Your task to perform on an android device: delete a single message in the gmail app Image 0: 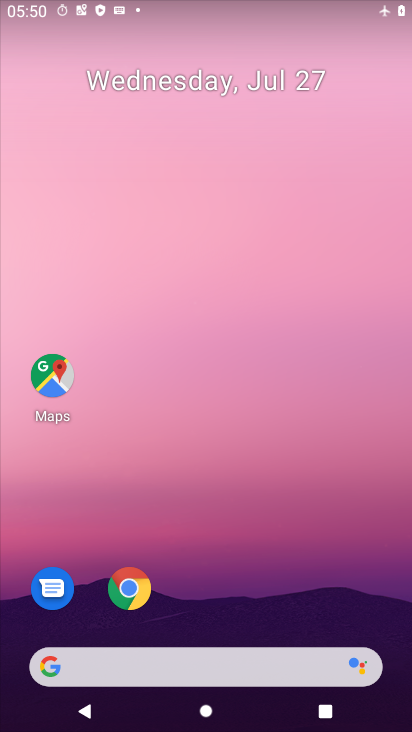
Step 0: drag from (285, 661) to (396, 64)
Your task to perform on an android device: delete a single message in the gmail app Image 1: 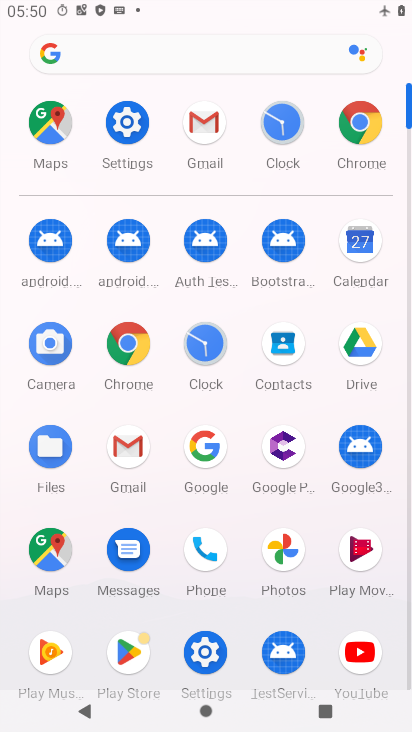
Step 1: click (134, 441)
Your task to perform on an android device: delete a single message in the gmail app Image 2: 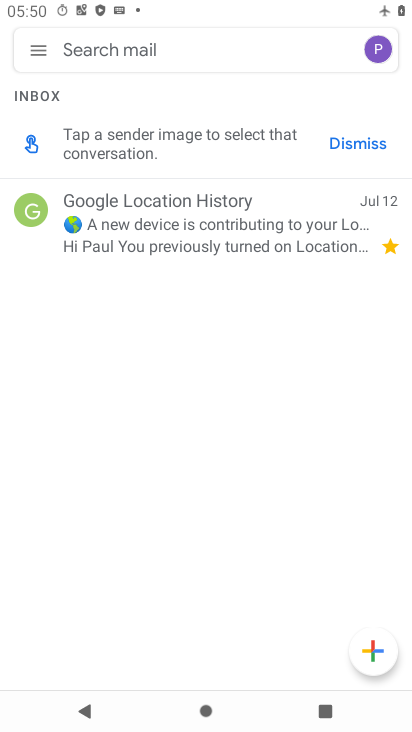
Step 2: click (166, 255)
Your task to perform on an android device: delete a single message in the gmail app Image 3: 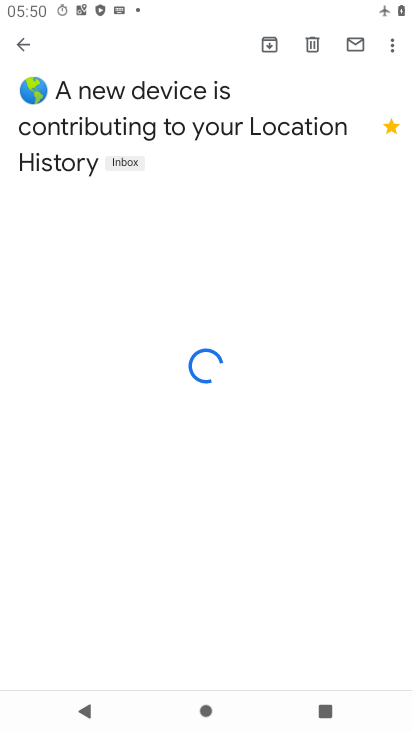
Step 3: click (305, 36)
Your task to perform on an android device: delete a single message in the gmail app Image 4: 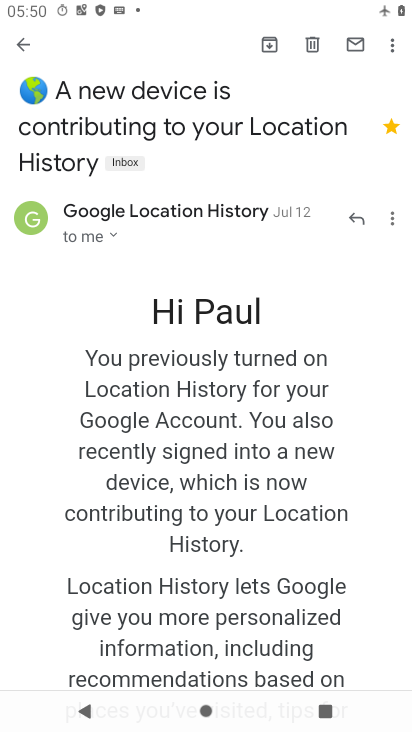
Step 4: click (314, 45)
Your task to perform on an android device: delete a single message in the gmail app Image 5: 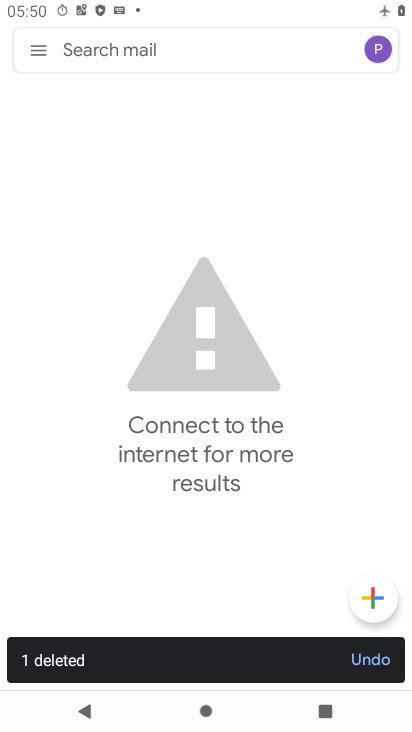
Step 5: task complete